Your task to perform on an android device: Open eBay Image 0: 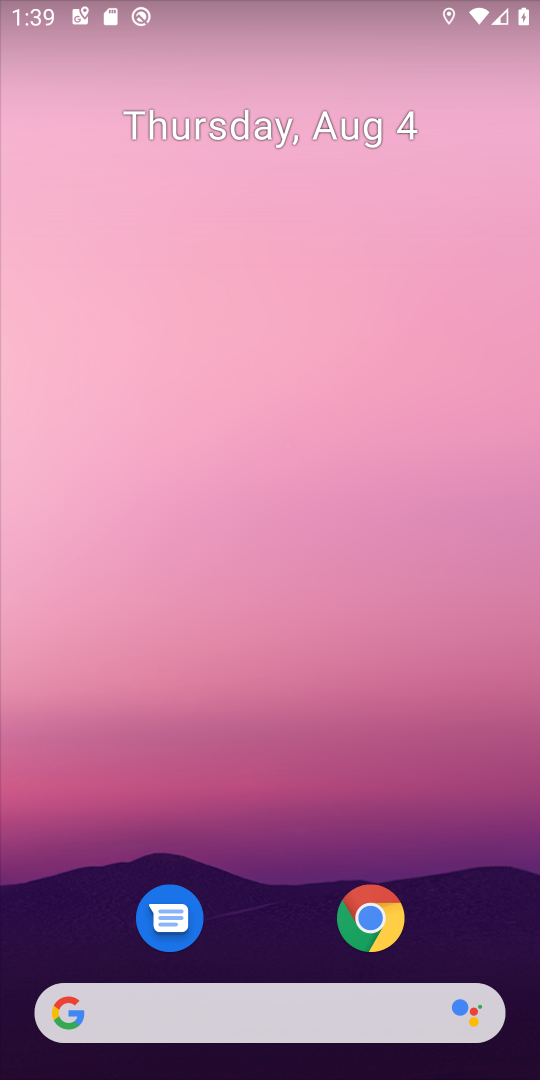
Step 0: click (349, 885)
Your task to perform on an android device: Open eBay Image 1: 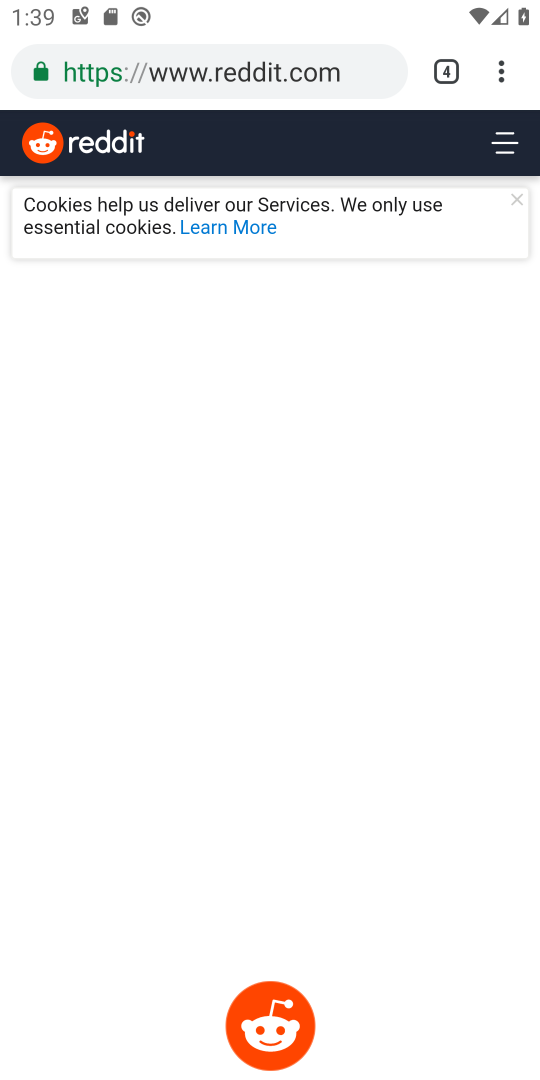
Step 1: click (434, 74)
Your task to perform on an android device: Open eBay Image 2: 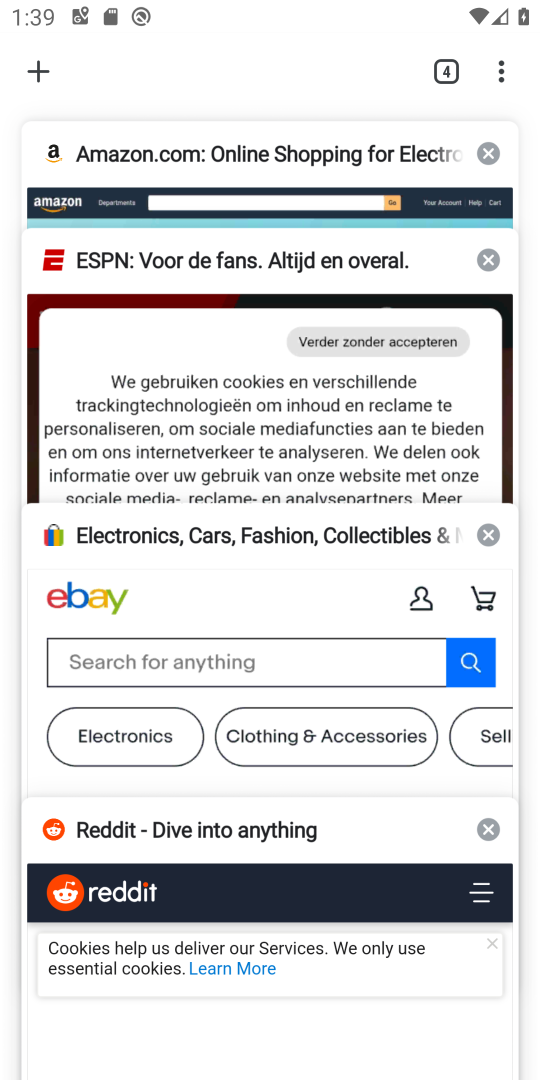
Step 2: click (39, 81)
Your task to perform on an android device: Open eBay Image 3: 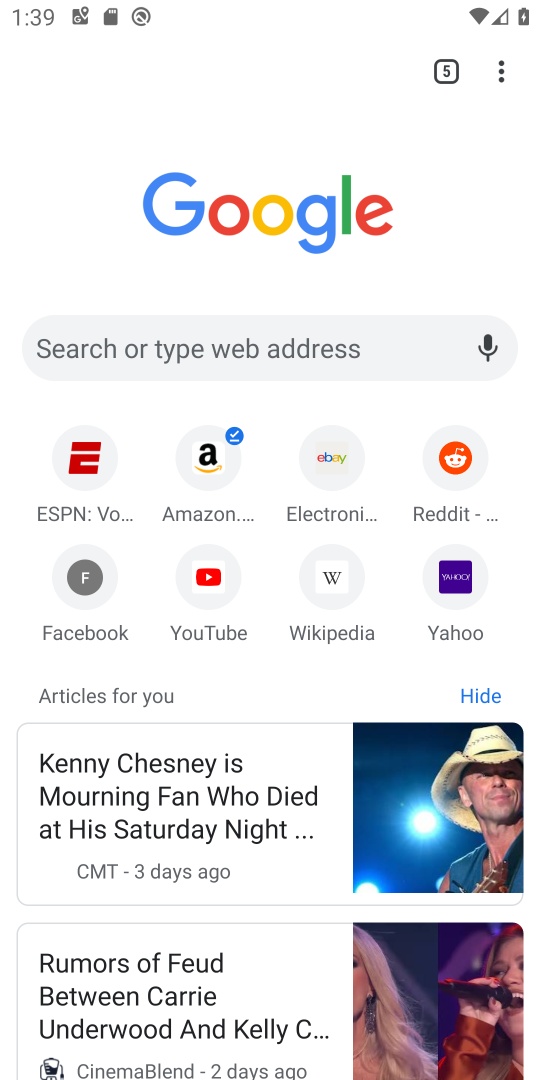
Step 3: click (340, 459)
Your task to perform on an android device: Open eBay Image 4: 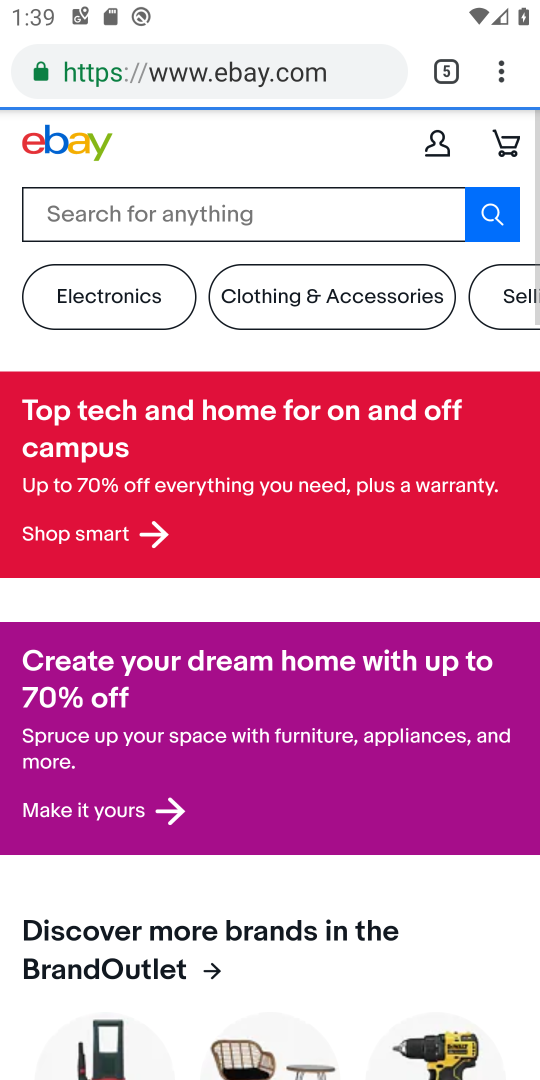
Step 4: task complete